Your task to perform on an android device: toggle wifi Image 0: 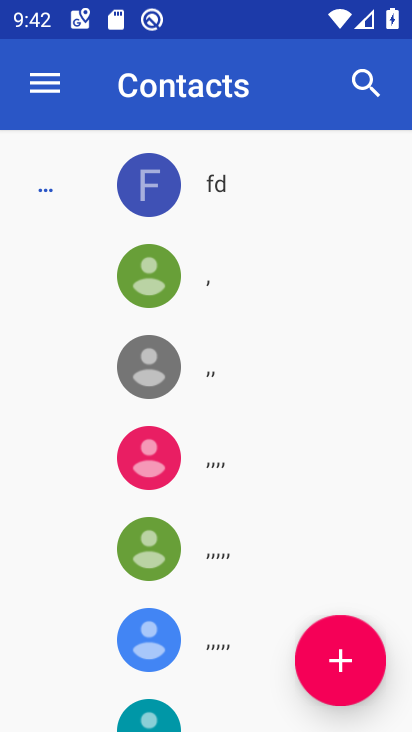
Step 0: press home button
Your task to perform on an android device: toggle wifi Image 1: 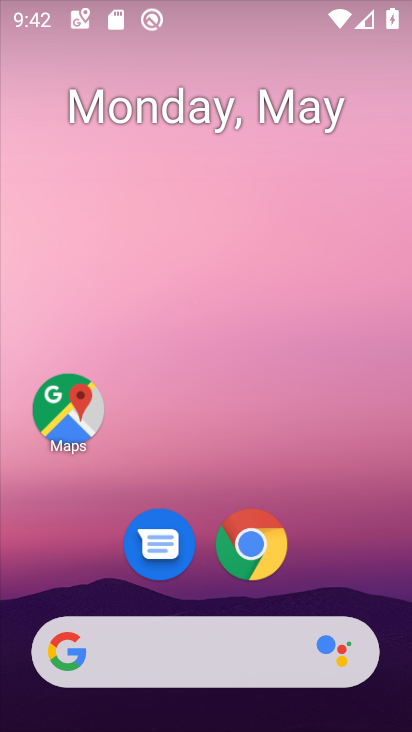
Step 1: drag from (346, 545) to (310, 103)
Your task to perform on an android device: toggle wifi Image 2: 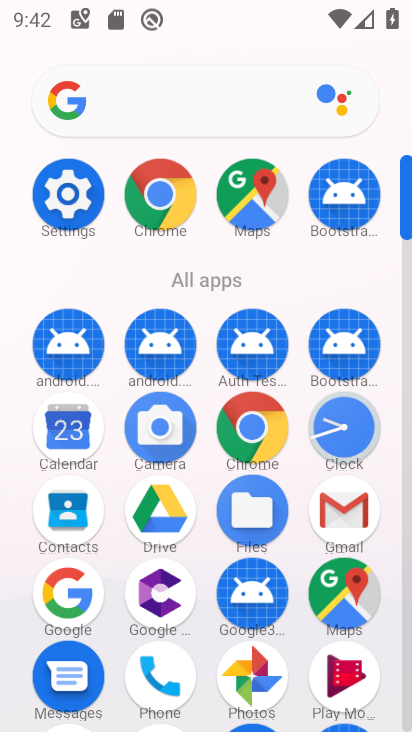
Step 2: click (71, 196)
Your task to perform on an android device: toggle wifi Image 3: 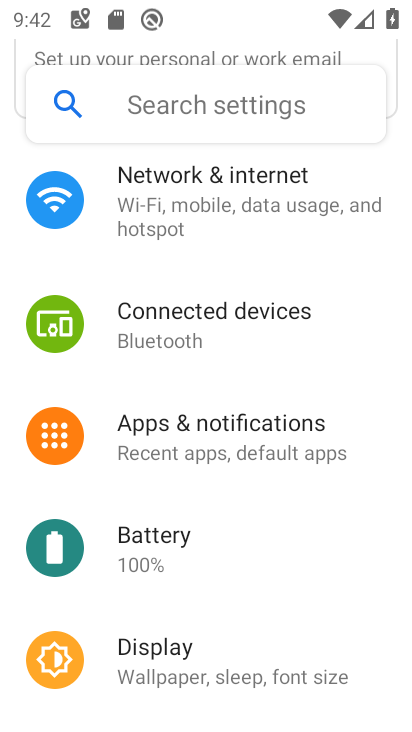
Step 3: click (253, 196)
Your task to perform on an android device: toggle wifi Image 4: 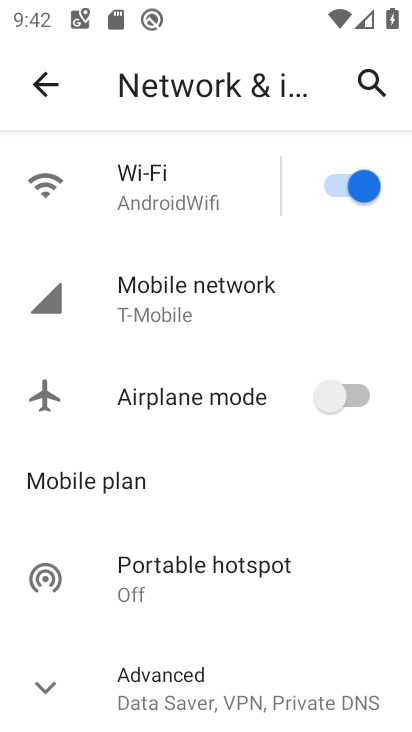
Step 4: click (202, 195)
Your task to perform on an android device: toggle wifi Image 5: 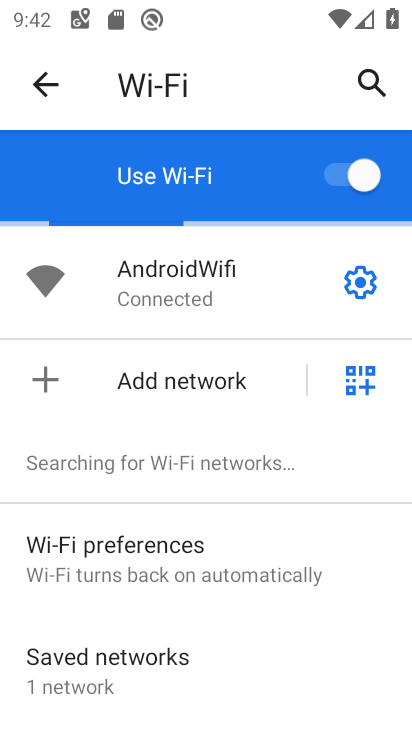
Step 5: click (355, 285)
Your task to perform on an android device: toggle wifi Image 6: 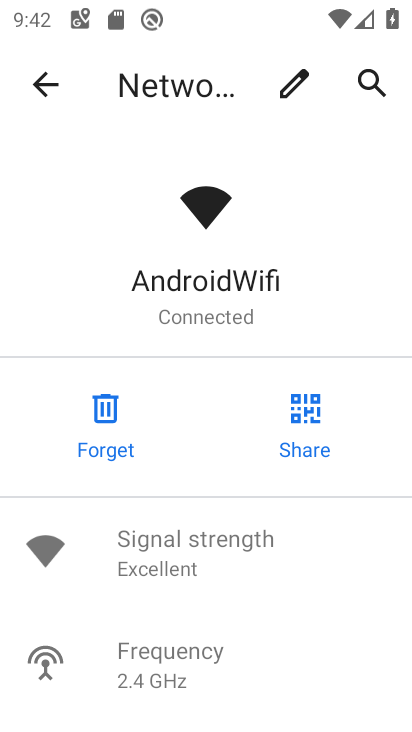
Step 6: task complete